Your task to perform on an android device: Open the phone app and click the voicemail tab. Image 0: 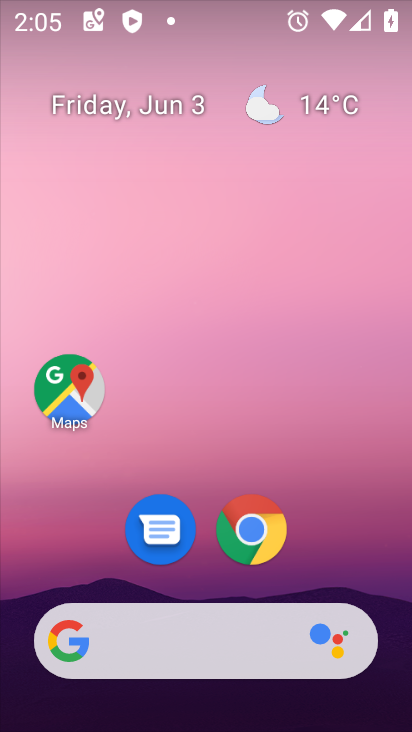
Step 0: drag from (377, 568) to (382, 196)
Your task to perform on an android device: Open the phone app and click the voicemail tab. Image 1: 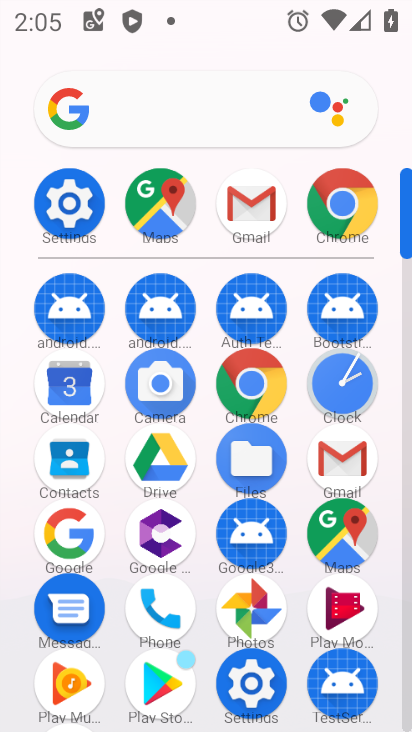
Step 1: click (352, 610)
Your task to perform on an android device: Open the phone app and click the voicemail tab. Image 2: 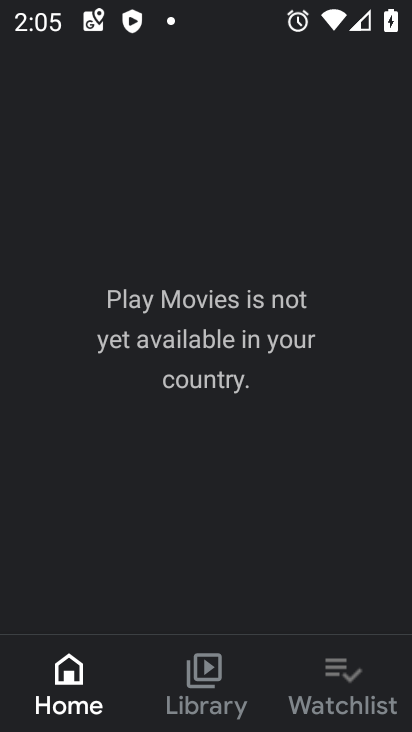
Step 2: click (352, 678)
Your task to perform on an android device: Open the phone app and click the voicemail tab. Image 3: 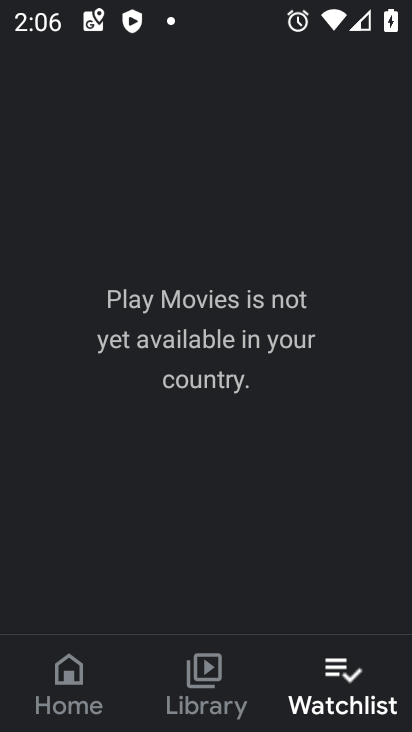
Step 3: task complete